Your task to perform on an android device: Open Chrome and go to settings Image 0: 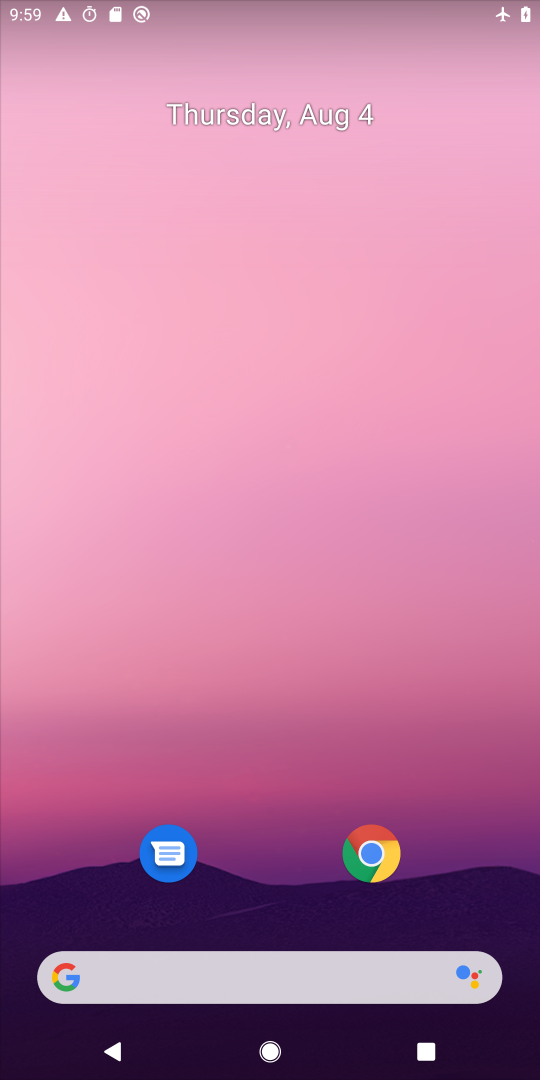
Step 0: click (359, 850)
Your task to perform on an android device: Open Chrome and go to settings Image 1: 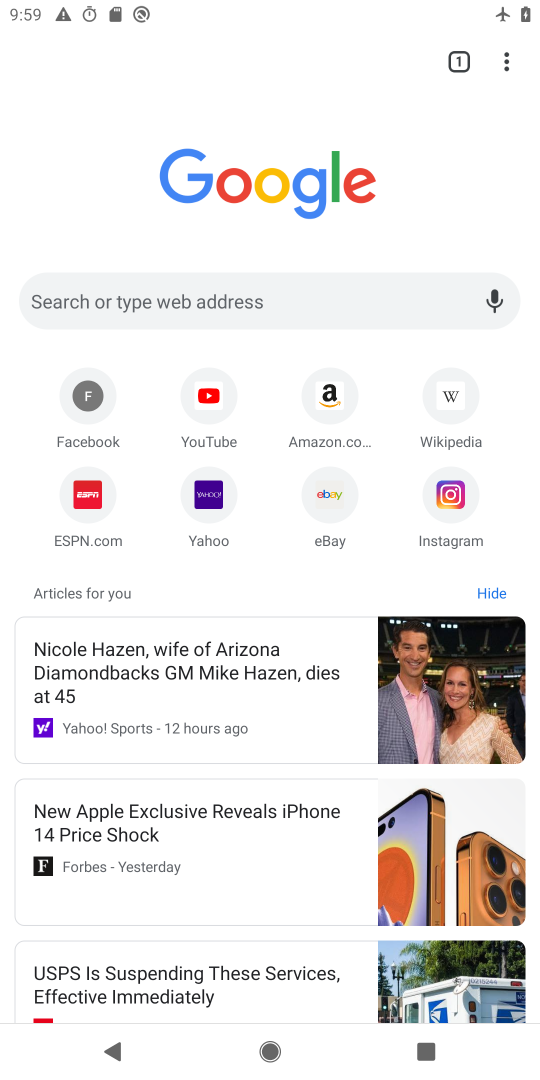
Step 1: click (503, 50)
Your task to perform on an android device: Open Chrome and go to settings Image 2: 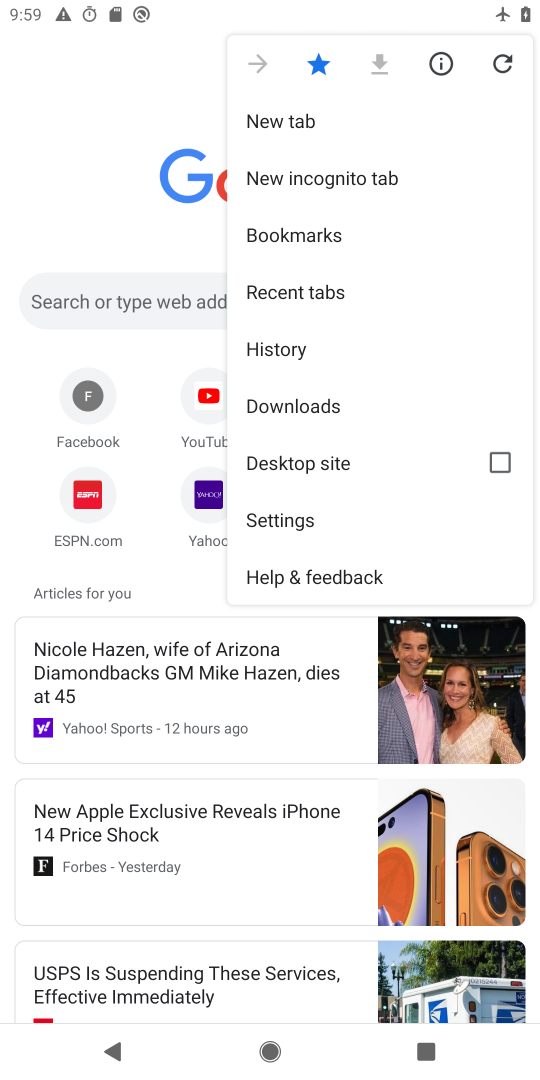
Step 2: click (287, 517)
Your task to perform on an android device: Open Chrome and go to settings Image 3: 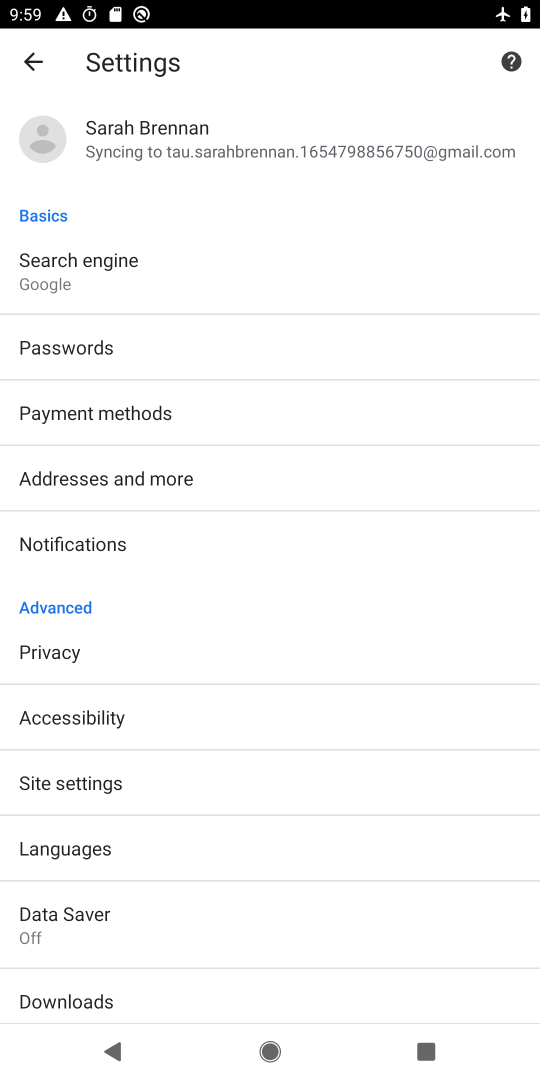
Step 3: task complete